Your task to perform on an android device: Search for the best vacuum on Amazon. Image 0: 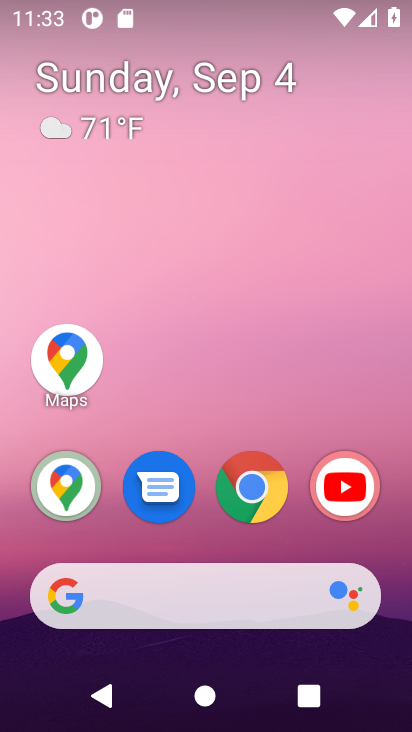
Step 0: click (273, 484)
Your task to perform on an android device: Search for the best vacuum on Amazon. Image 1: 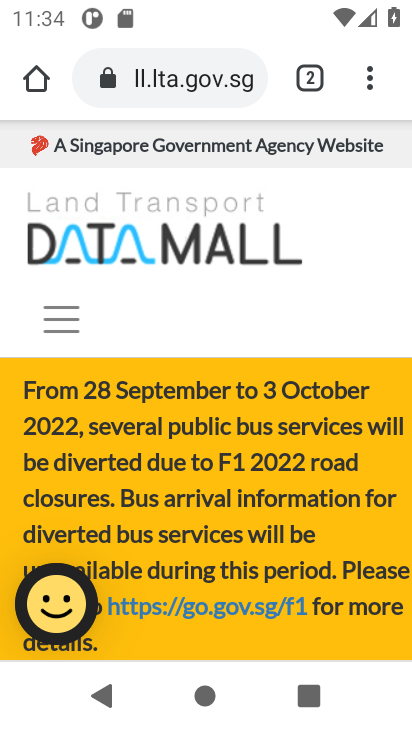
Step 1: task complete